Your task to perform on an android device: Go to Amazon Image 0: 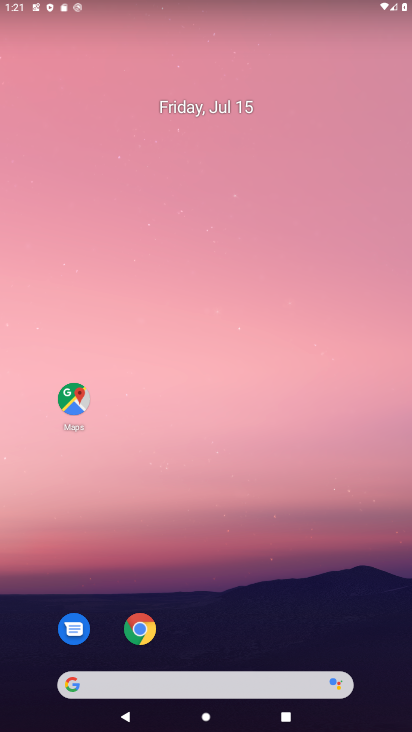
Step 0: drag from (359, 549) to (280, 10)
Your task to perform on an android device: Go to Amazon Image 1: 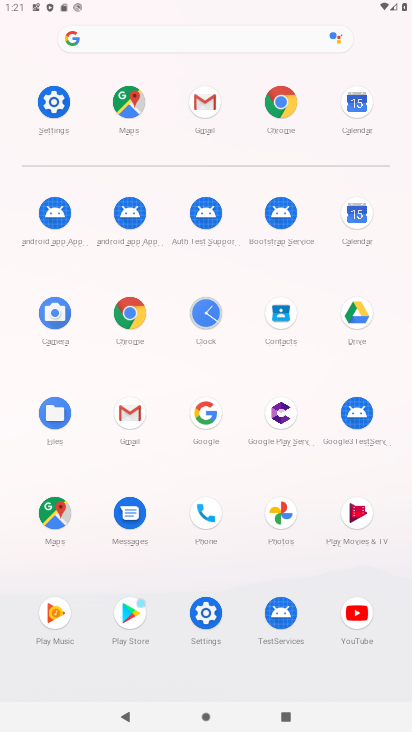
Step 1: click (277, 99)
Your task to perform on an android device: Go to Amazon Image 2: 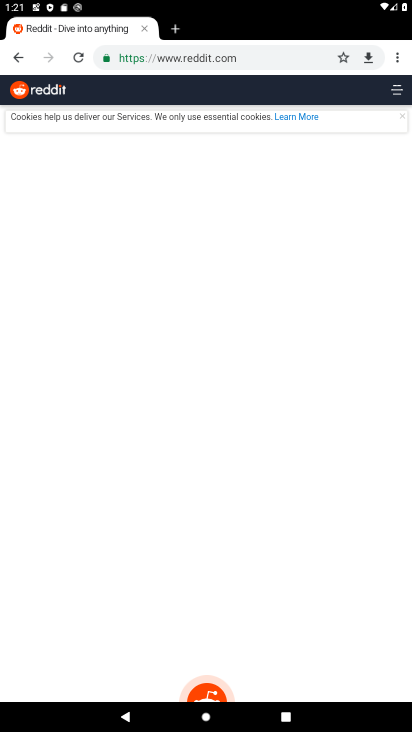
Step 2: click (218, 63)
Your task to perform on an android device: Go to Amazon Image 3: 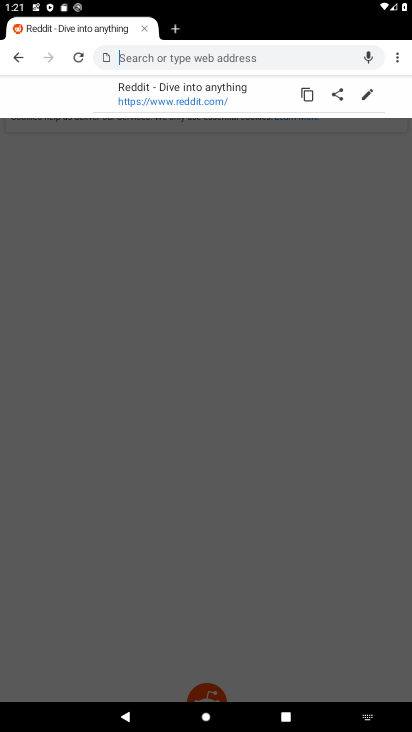
Step 3: type "amazon"
Your task to perform on an android device: Go to Amazon Image 4: 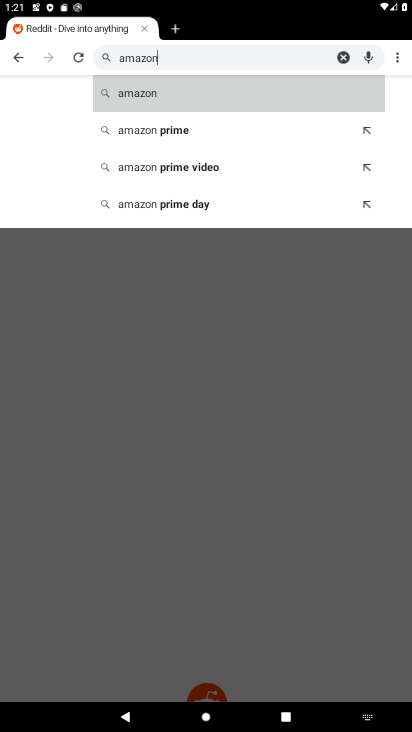
Step 4: type ""
Your task to perform on an android device: Go to Amazon Image 5: 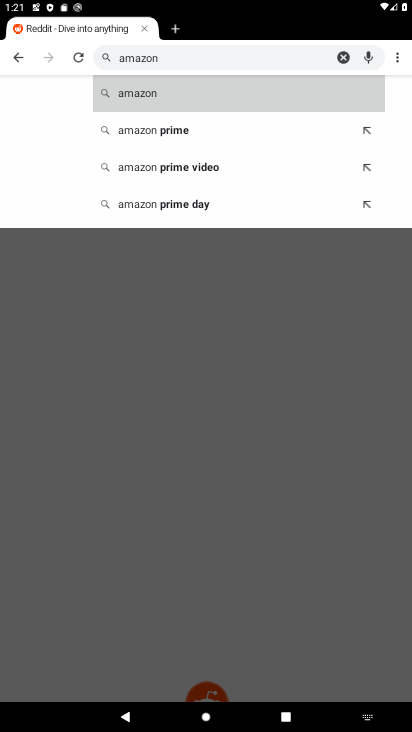
Step 5: click (163, 91)
Your task to perform on an android device: Go to Amazon Image 6: 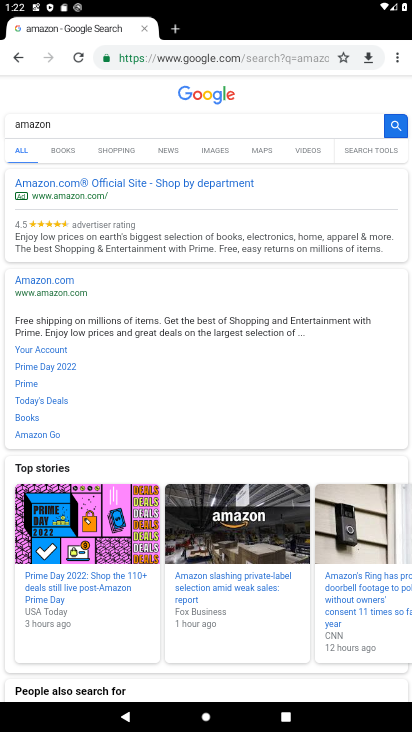
Step 6: click (49, 283)
Your task to perform on an android device: Go to Amazon Image 7: 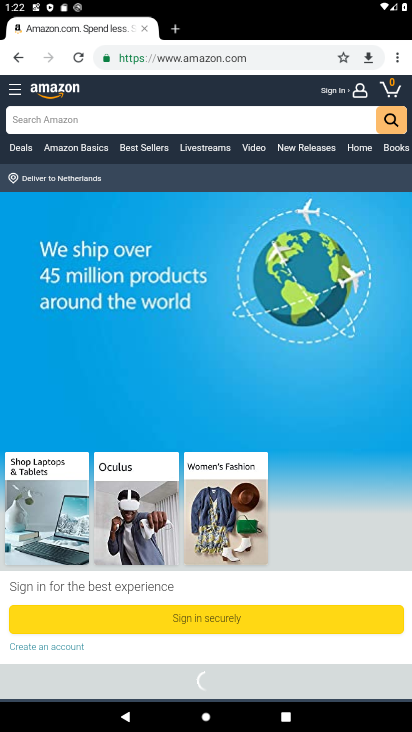
Step 7: task complete